Your task to perform on an android device: Search for seafood restaurants on Google Maps Image 0: 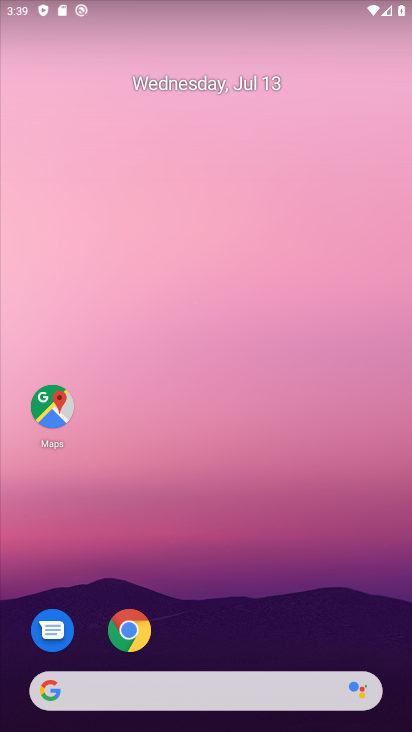
Step 0: drag from (258, 515) to (309, 78)
Your task to perform on an android device: Search for seafood restaurants on Google Maps Image 1: 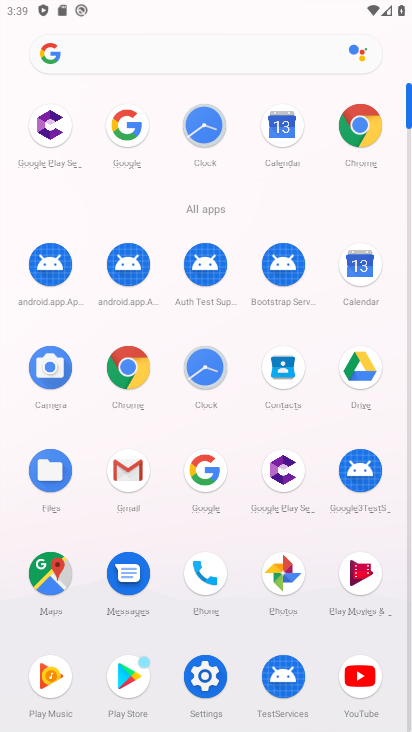
Step 1: click (38, 582)
Your task to perform on an android device: Search for seafood restaurants on Google Maps Image 2: 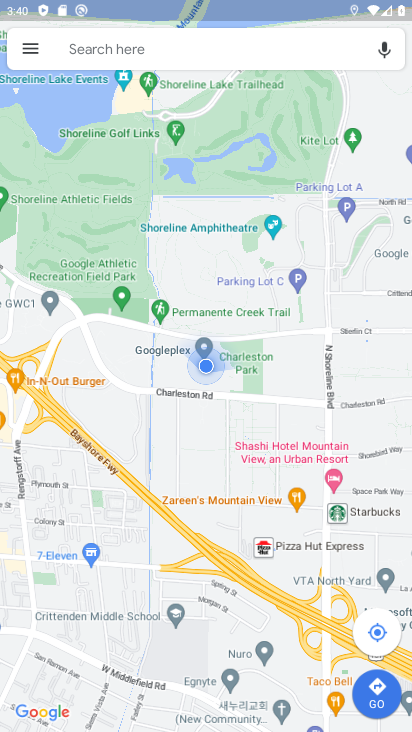
Step 2: click (196, 47)
Your task to perform on an android device: Search for seafood restaurants on Google Maps Image 3: 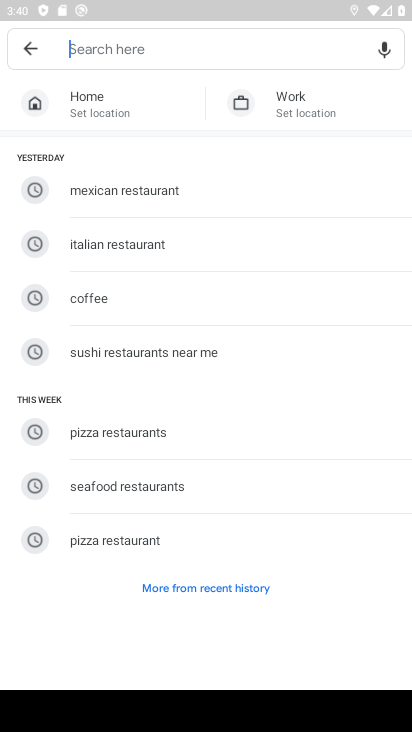
Step 3: type "seafood restaurants"
Your task to perform on an android device: Search for seafood restaurants on Google Maps Image 4: 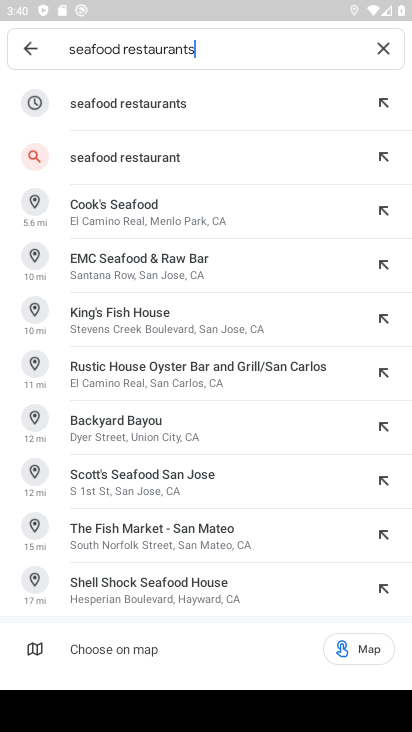
Step 4: click (122, 95)
Your task to perform on an android device: Search for seafood restaurants on Google Maps Image 5: 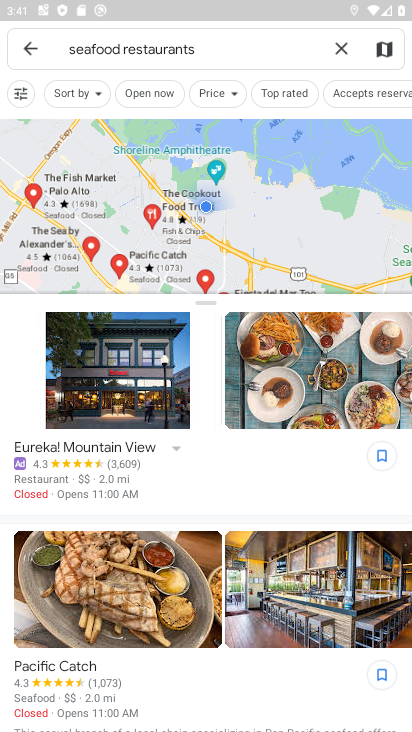
Step 5: task complete